Your task to perform on an android device: remove spam from my inbox in the gmail app Image 0: 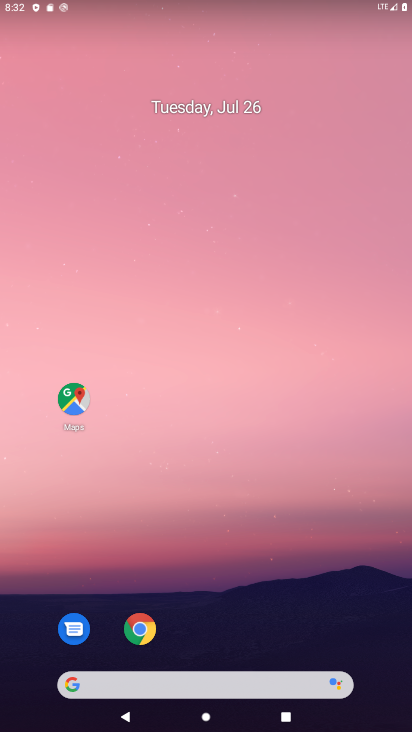
Step 0: drag from (195, 676) to (180, 117)
Your task to perform on an android device: remove spam from my inbox in the gmail app Image 1: 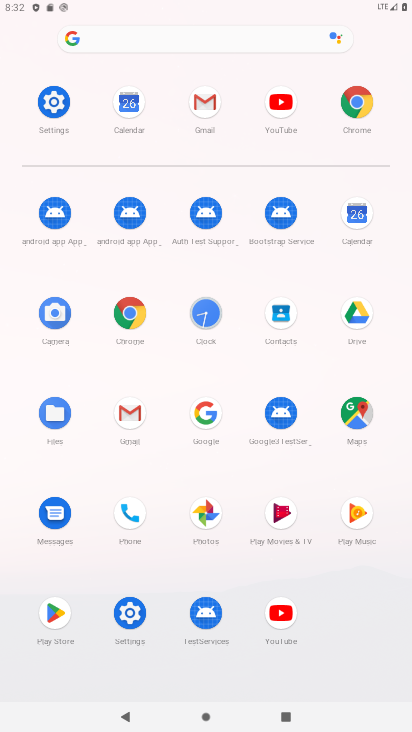
Step 1: click (135, 403)
Your task to perform on an android device: remove spam from my inbox in the gmail app Image 2: 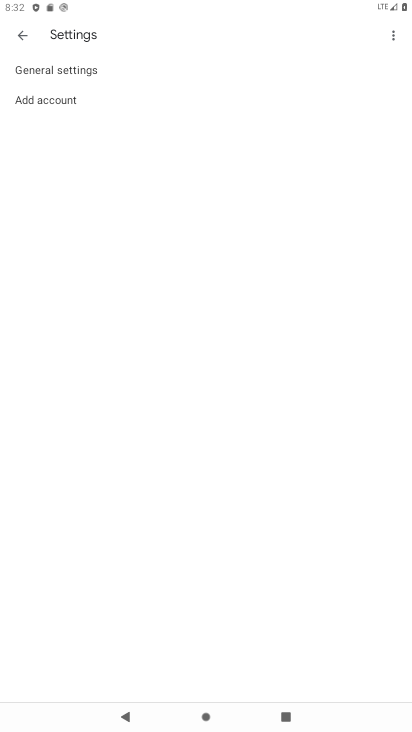
Step 2: click (18, 34)
Your task to perform on an android device: remove spam from my inbox in the gmail app Image 3: 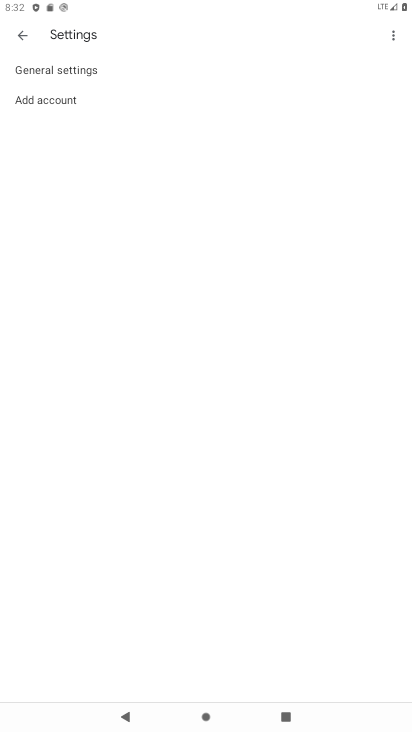
Step 3: click (25, 26)
Your task to perform on an android device: remove spam from my inbox in the gmail app Image 4: 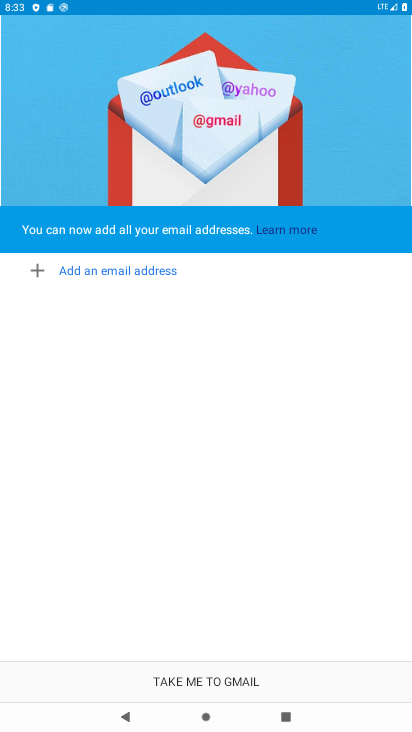
Step 4: click (221, 680)
Your task to perform on an android device: remove spam from my inbox in the gmail app Image 5: 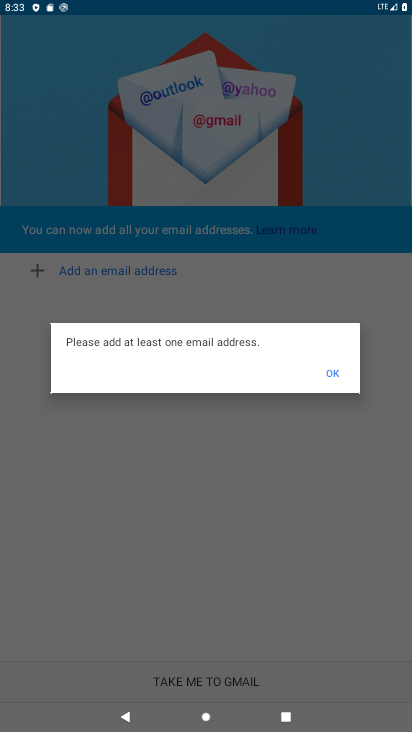
Step 5: task complete